Your task to perform on an android device: add a label to a message in the gmail app Image 0: 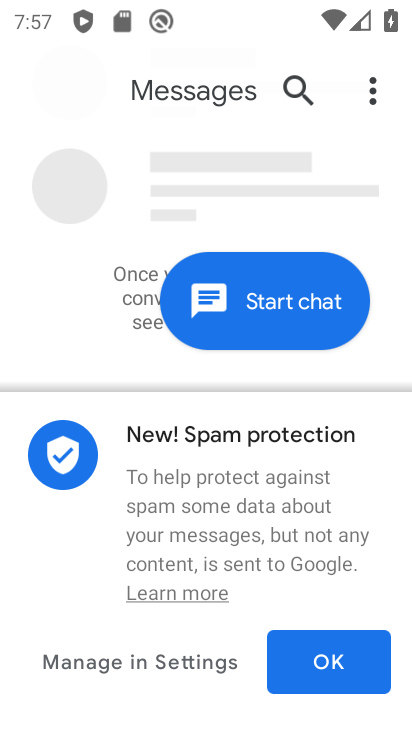
Step 0: press home button
Your task to perform on an android device: add a label to a message in the gmail app Image 1: 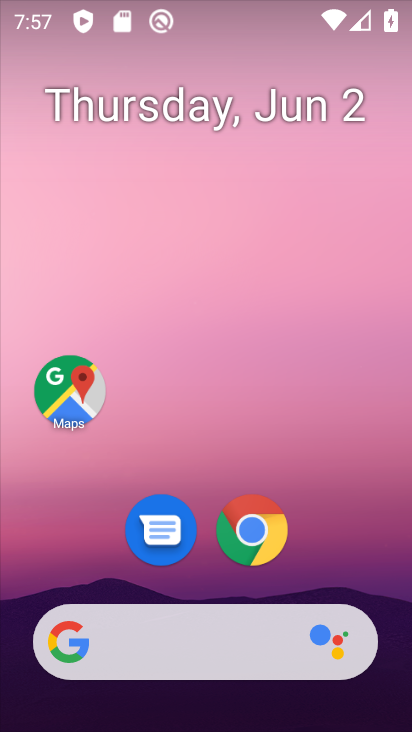
Step 1: drag from (188, 555) to (162, 117)
Your task to perform on an android device: add a label to a message in the gmail app Image 2: 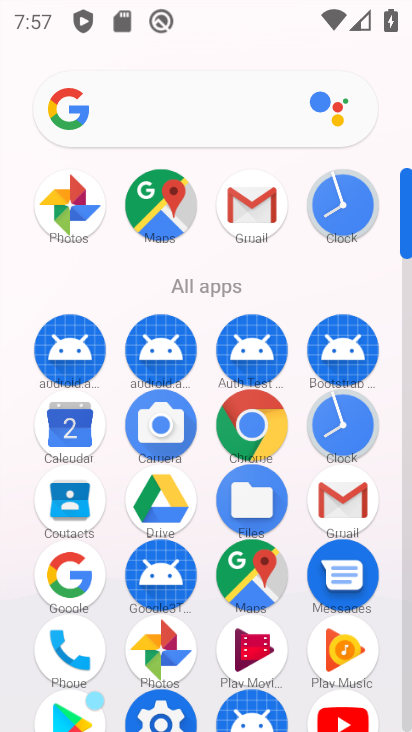
Step 2: click (324, 525)
Your task to perform on an android device: add a label to a message in the gmail app Image 3: 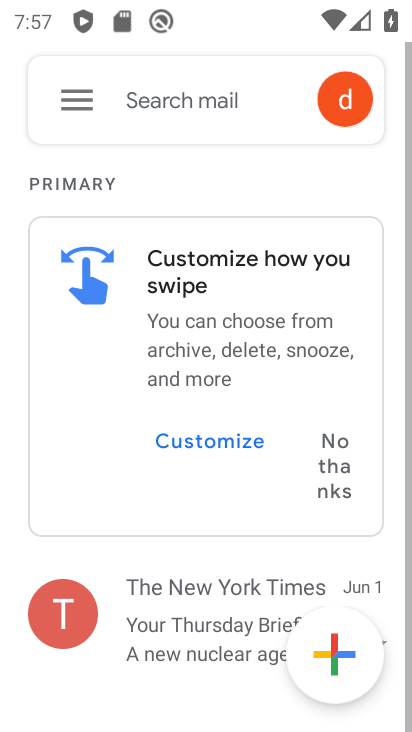
Step 3: click (172, 608)
Your task to perform on an android device: add a label to a message in the gmail app Image 4: 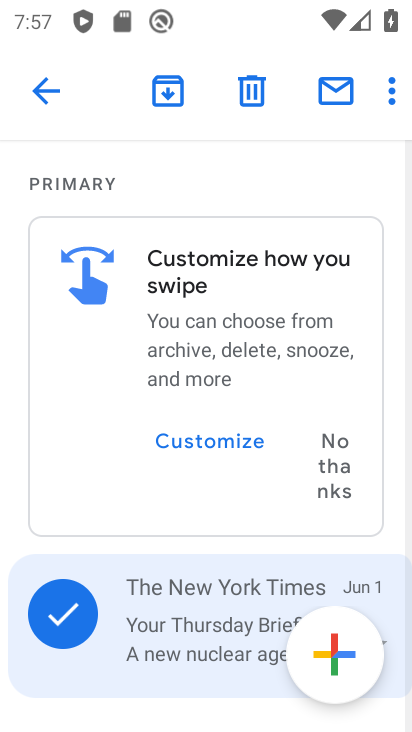
Step 4: click (391, 91)
Your task to perform on an android device: add a label to a message in the gmail app Image 5: 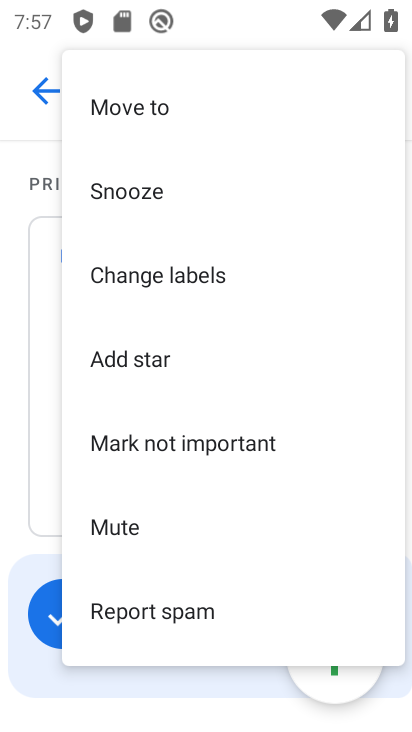
Step 5: drag from (140, 537) to (106, 288)
Your task to perform on an android device: add a label to a message in the gmail app Image 6: 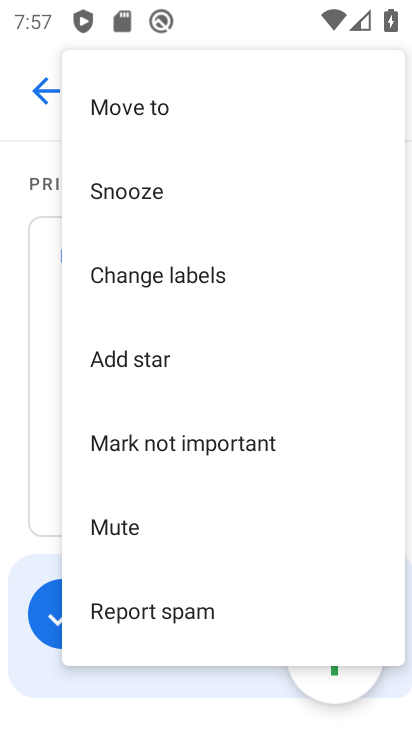
Step 6: click (163, 291)
Your task to perform on an android device: add a label to a message in the gmail app Image 7: 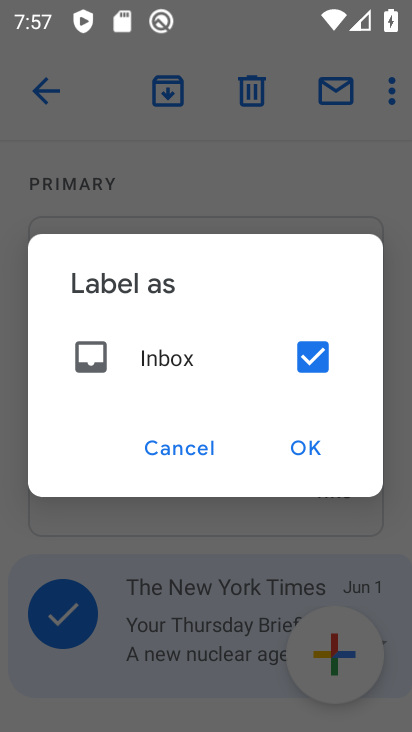
Step 7: click (297, 415)
Your task to perform on an android device: add a label to a message in the gmail app Image 8: 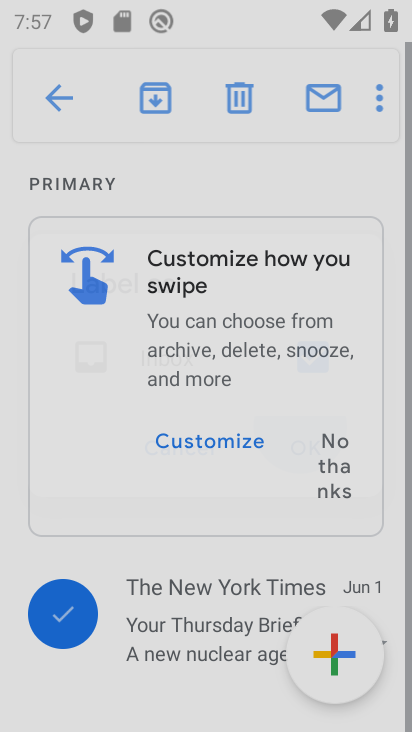
Step 8: click (307, 436)
Your task to perform on an android device: add a label to a message in the gmail app Image 9: 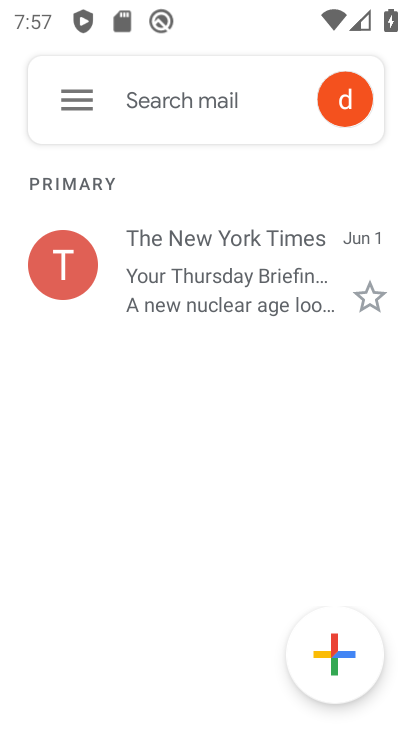
Step 9: task complete